Your task to perform on an android device: Search for Italian restaurants on Maps Image 0: 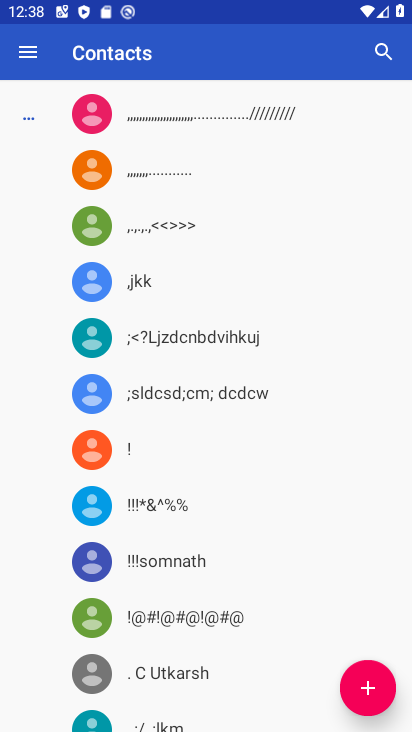
Step 0: press home button
Your task to perform on an android device: Search for Italian restaurants on Maps Image 1: 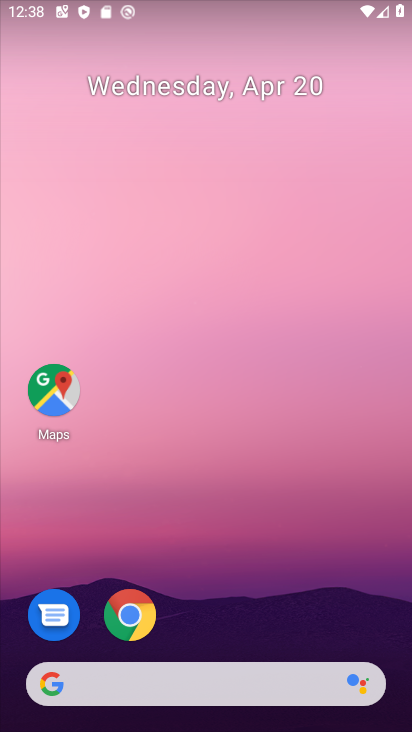
Step 1: click (52, 397)
Your task to perform on an android device: Search for Italian restaurants on Maps Image 2: 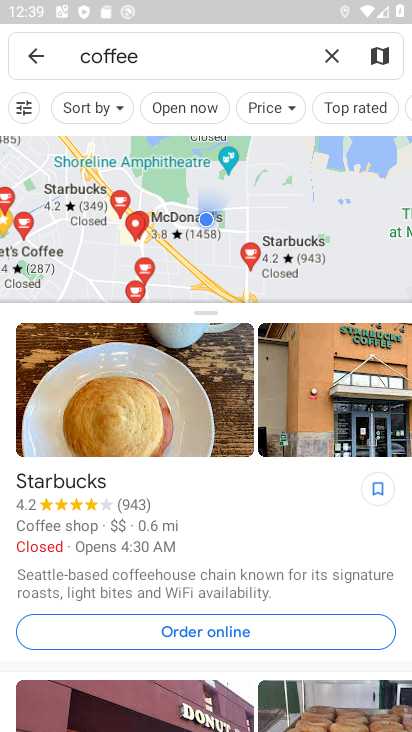
Step 2: click (336, 55)
Your task to perform on an android device: Search for Italian restaurants on Maps Image 3: 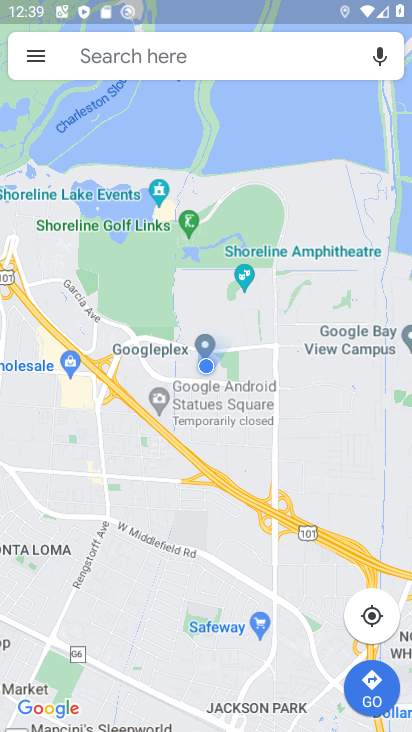
Step 3: click (133, 45)
Your task to perform on an android device: Search for Italian restaurants on Maps Image 4: 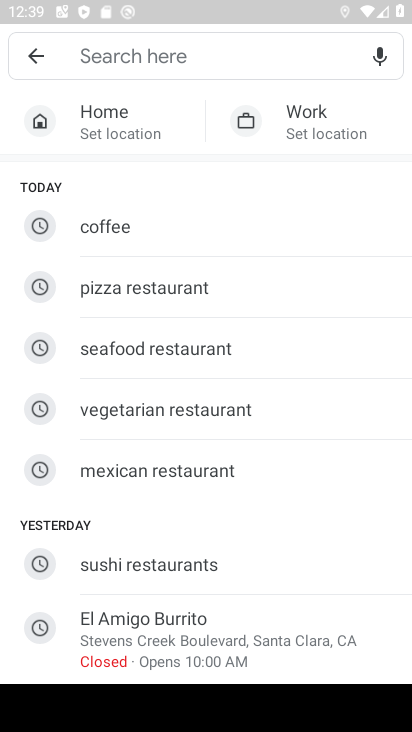
Step 4: type "Italian restaurants "
Your task to perform on an android device: Search for Italian restaurants on Maps Image 5: 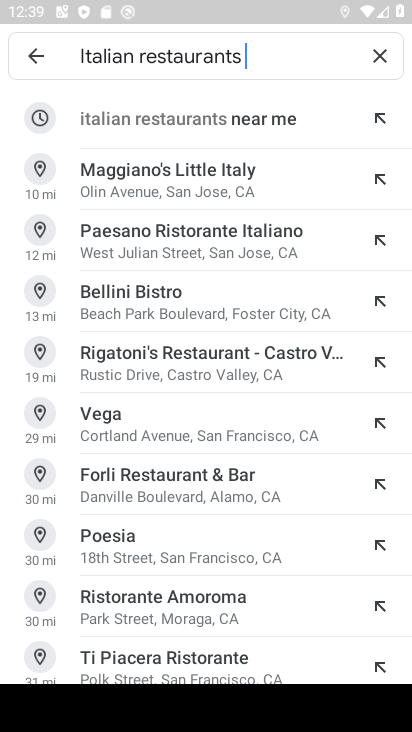
Step 5: click (149, 119)
Your task to perform on an android device: Search for Italian restaurants on Maps Image 6: 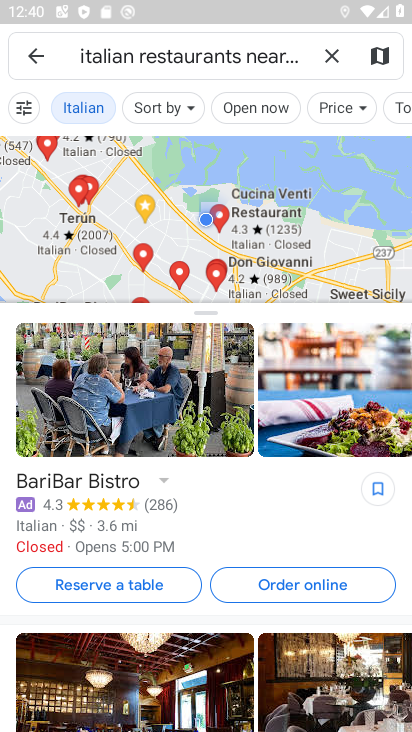
Step 6: task complete